Your task to perform on an android device: Is it going to rain today? Image 0: 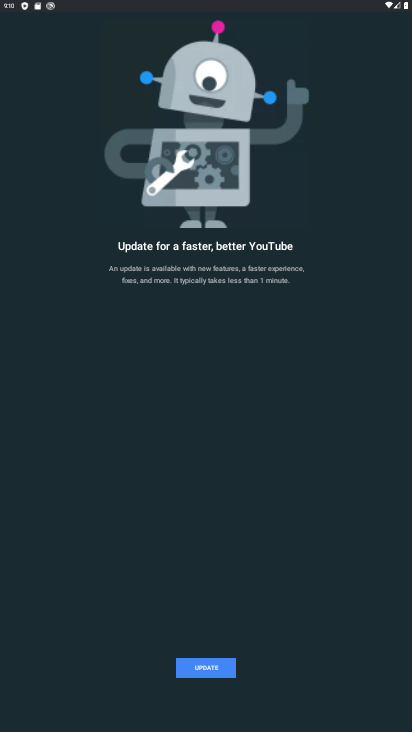
Step 0: press home button
Your task to perform on an android device: Is it going to rain today? Image 1: 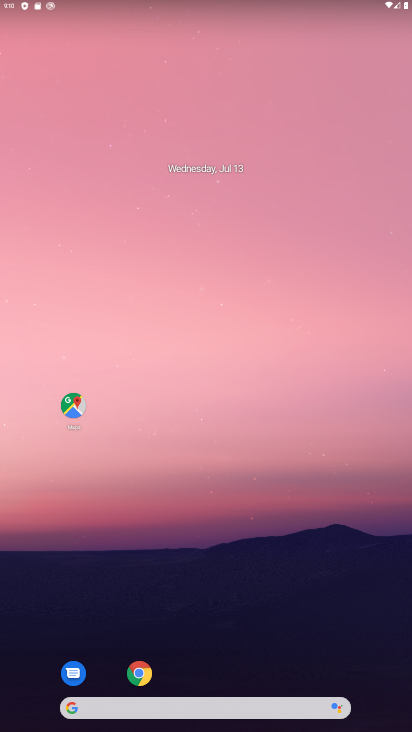
Step 1: drag from (216, 661) to (219, 80)
Your task to perform on an android device: Is it going to rain today? Image 2: 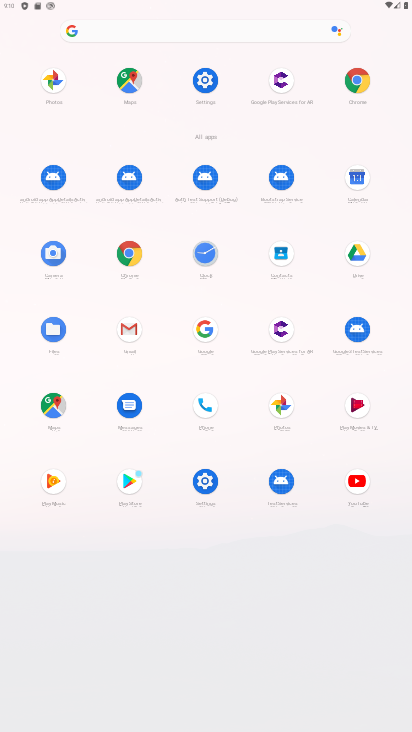
Step 2: click (207, 326)
Your task to perform on an android device: Is it going to rain today? Image 3: 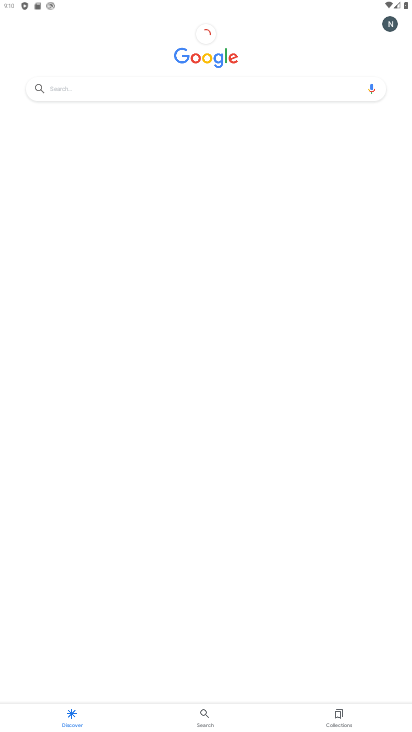
Step 3: click (262, 91)
Your task to perform on an android device: Is it going to rain today? Image 4: 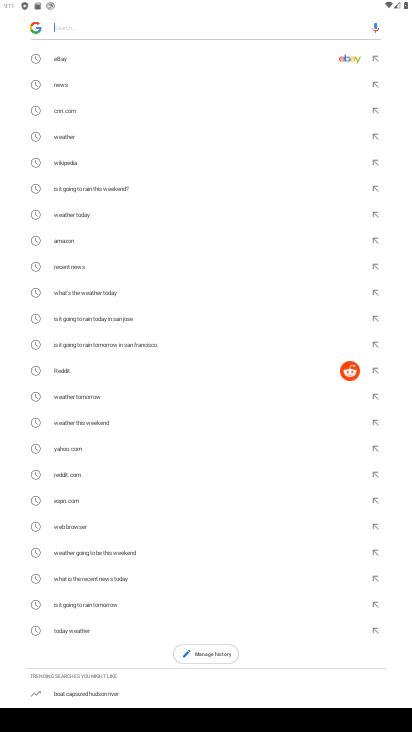
Step 4: click (104, 135)
Your task to perform on an android device: Is it going to rain today? Image 5: 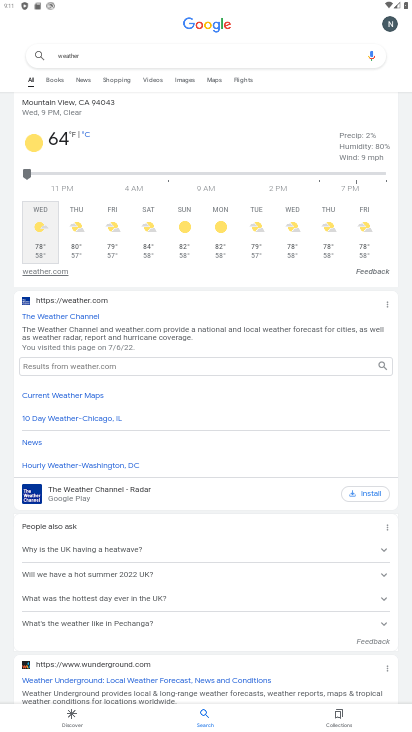
Step 5: task complete